Your task to perform on an android device: toggle data saver in the chrome app Image 0: 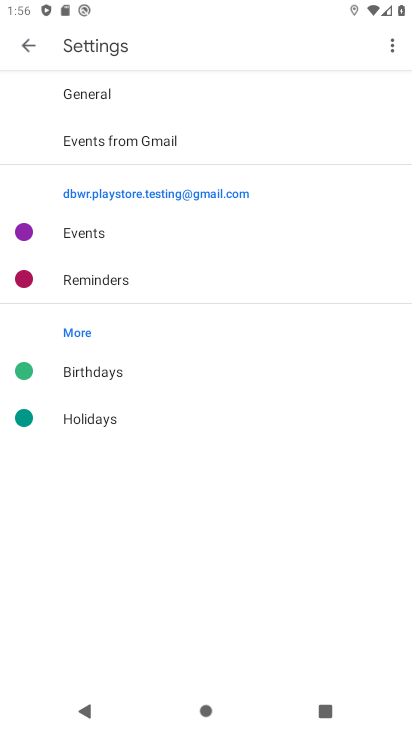
Step 0: press home button
Your task to perform on an android device: toggle data saver in the chrome app Image 1: 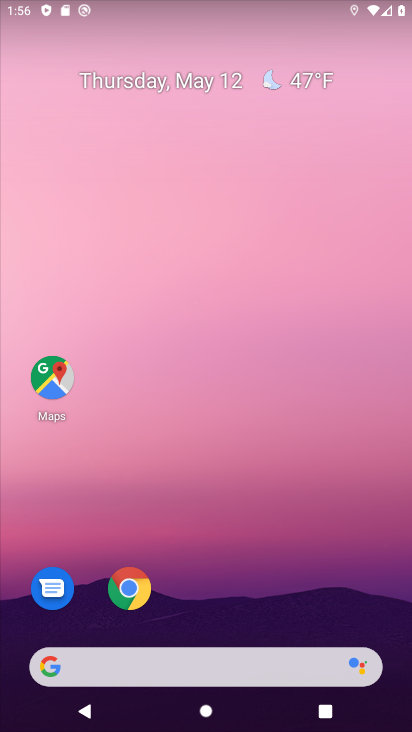
Step 1: drag from (387, 626) to (314, 49)
Your task to perform on an android device: toggle data saver in the chrome app Image 2: 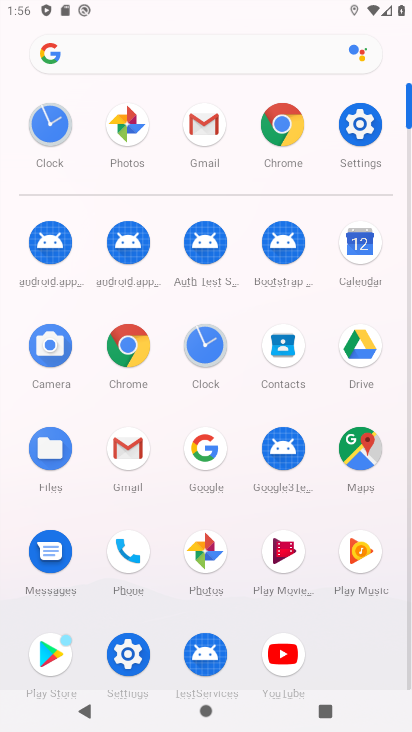
Step 2: click (140, 347)
Your task to perform on an android device: toggle data saver in the chrome app Image 3: 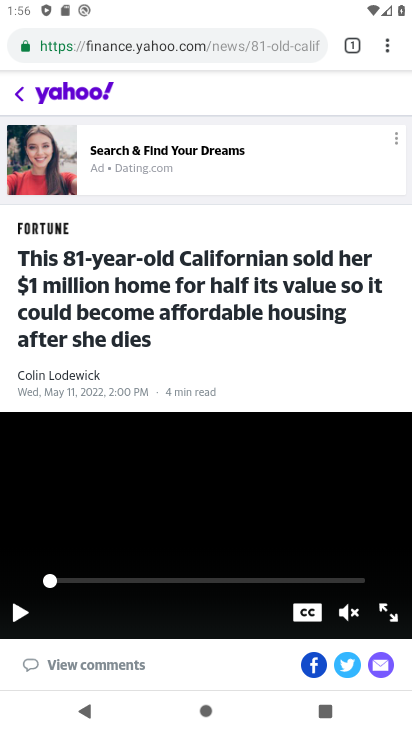
Step 3: press back button
Your task to perform on an android device: toggle data saver in the chrome app Image 4: 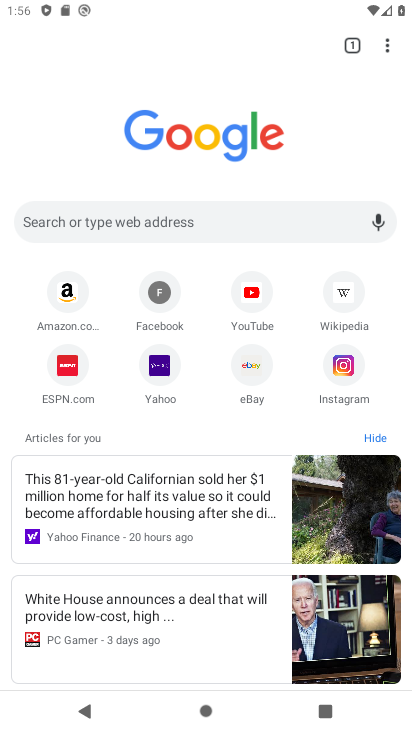
Step 4: click (388, 44)
Your task to perform on an android device: toggle data saver in the chrome app Image 5: 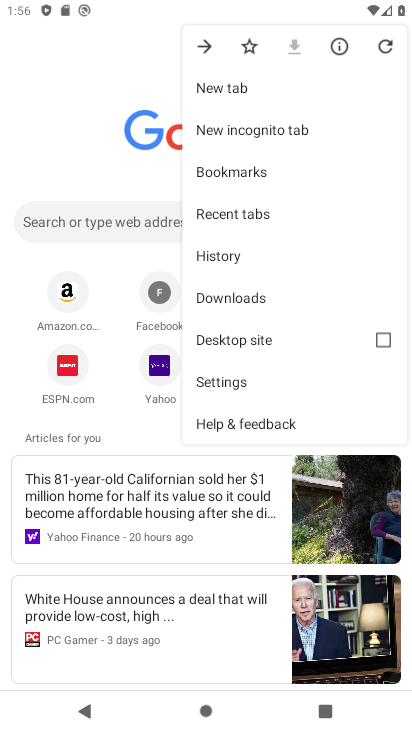
Step 5: click (233, 382)
Your task to perform on an android device: toggle data saver in the chrome app Image 6: 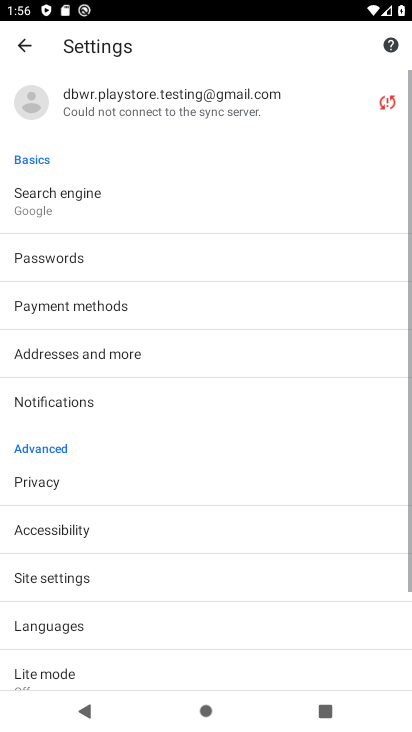
Step 6: drag from (143, 579) to (180, 289)
Your task to perform on an android device: toggle data saver in the chrome app Image 7: 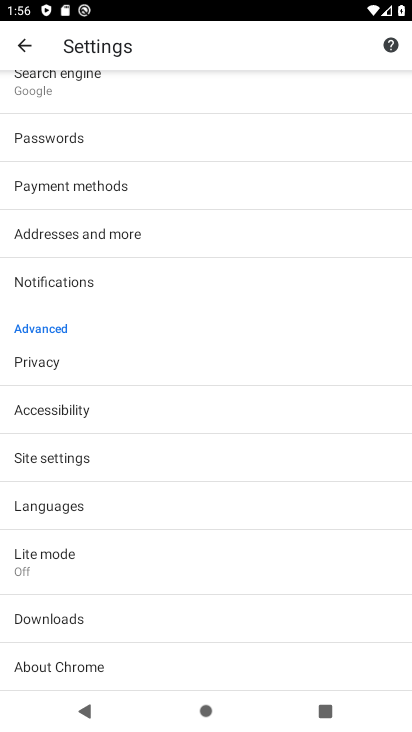
Step 7: click (119, 533)
Your task to perform on an android device: toggle data saver in the chrome app Image 8: 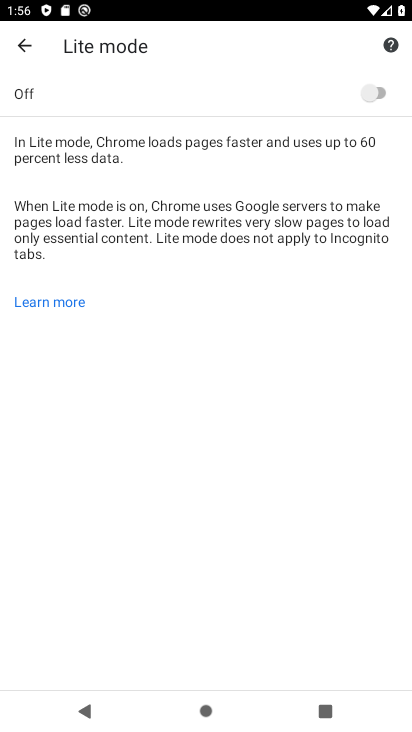
Step 8: click (374, 94)
Your task to perform on an android device: toggle data saver in the chrome app Image 9: 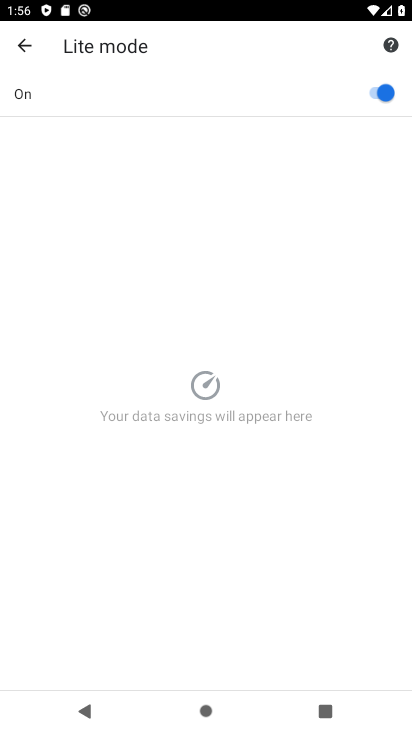
Step 9: task complete